Your task to perform on an android device: change notifications settings Image 0: 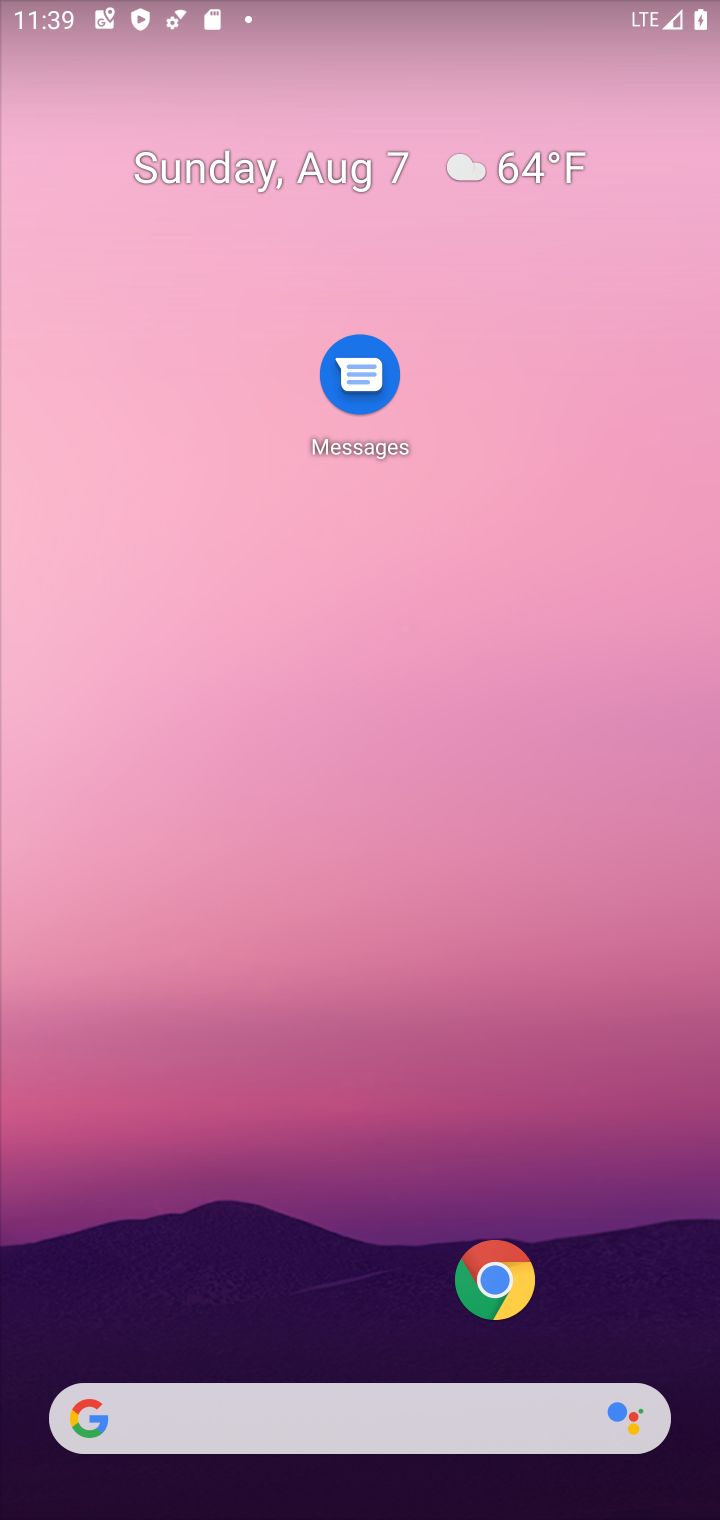
Step 0: drag from (383, 1312) to (556, 85)
Your task to perform on an android device: change notifications settings Image 1: 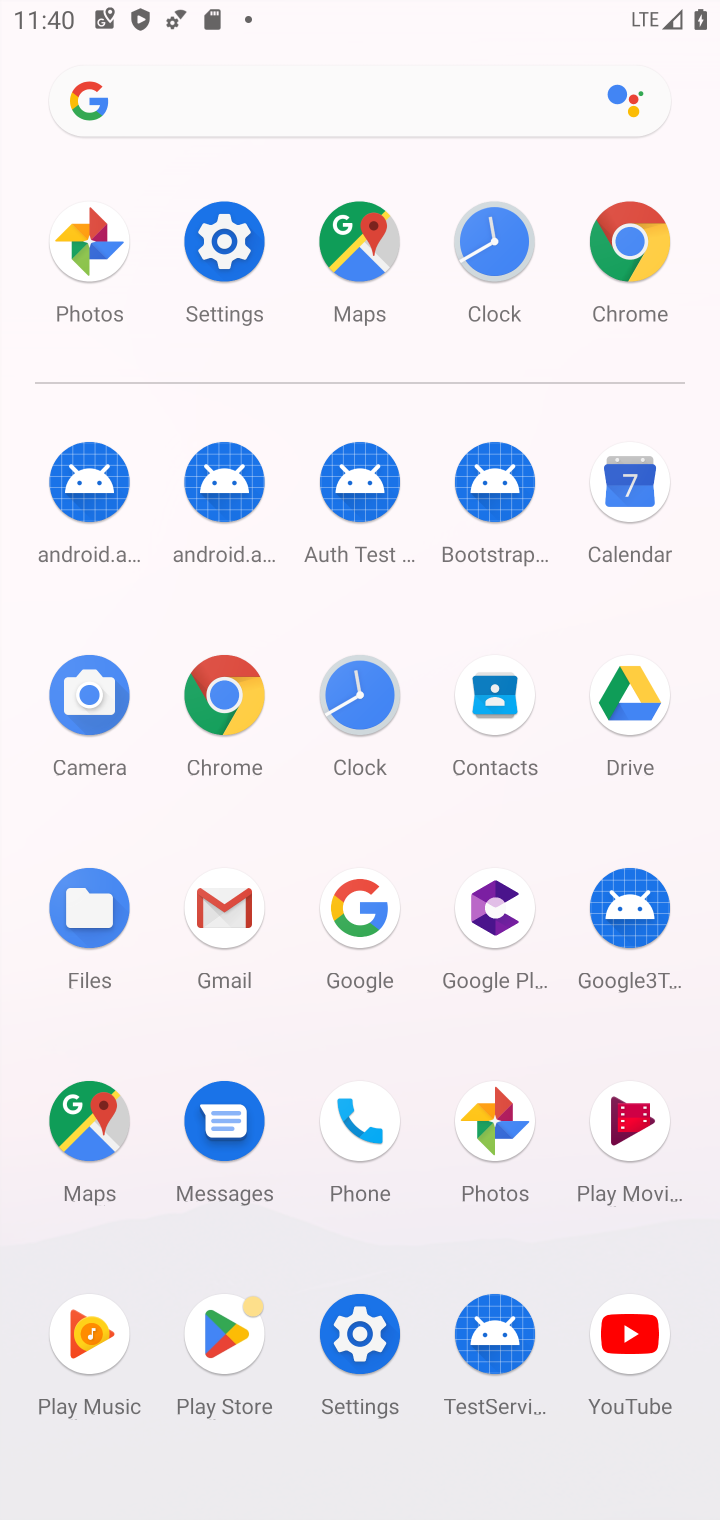
Step 1: click (222, 240)
Your task to perform on an android device: change notifications settings Image 2: 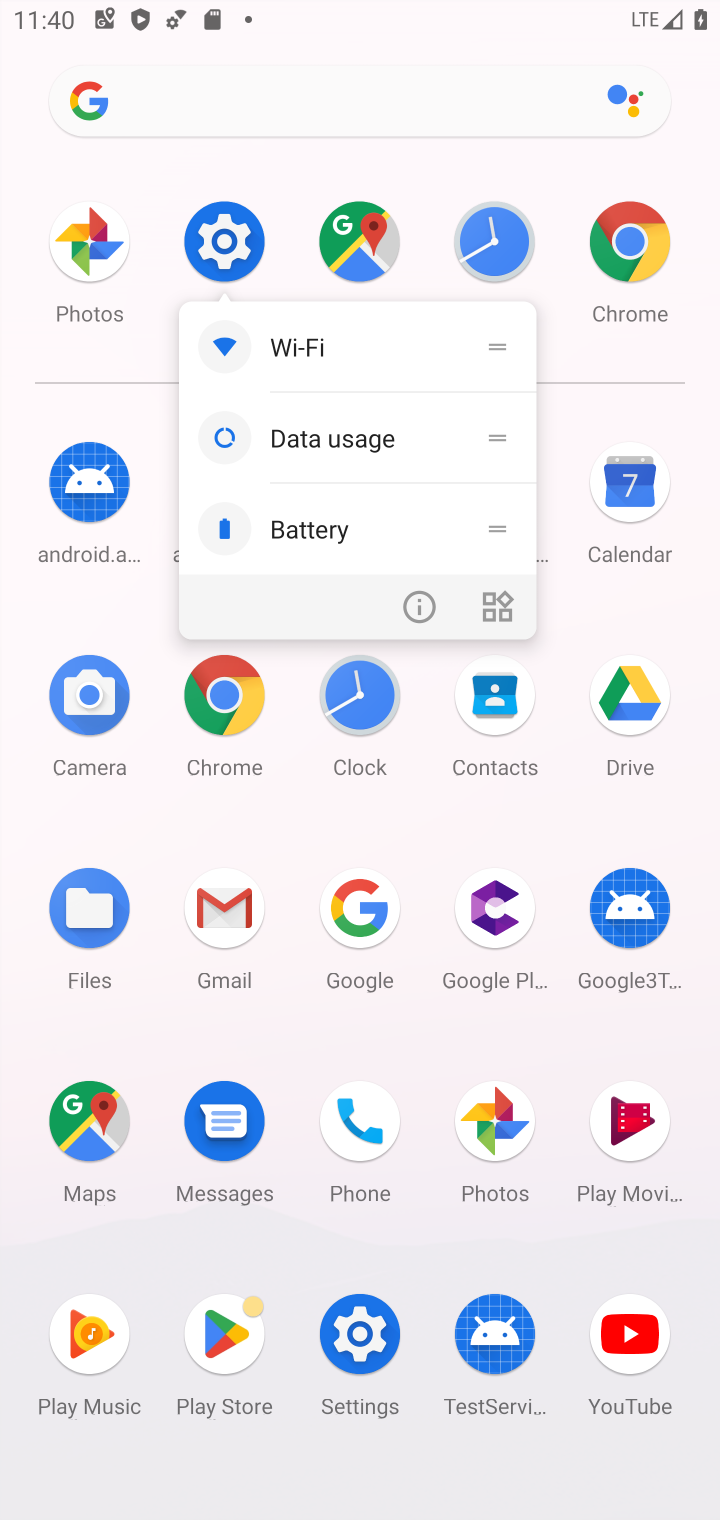
Step 2: click (233, 240)
Your task to perform on an android device: change notifications settings Image 3: 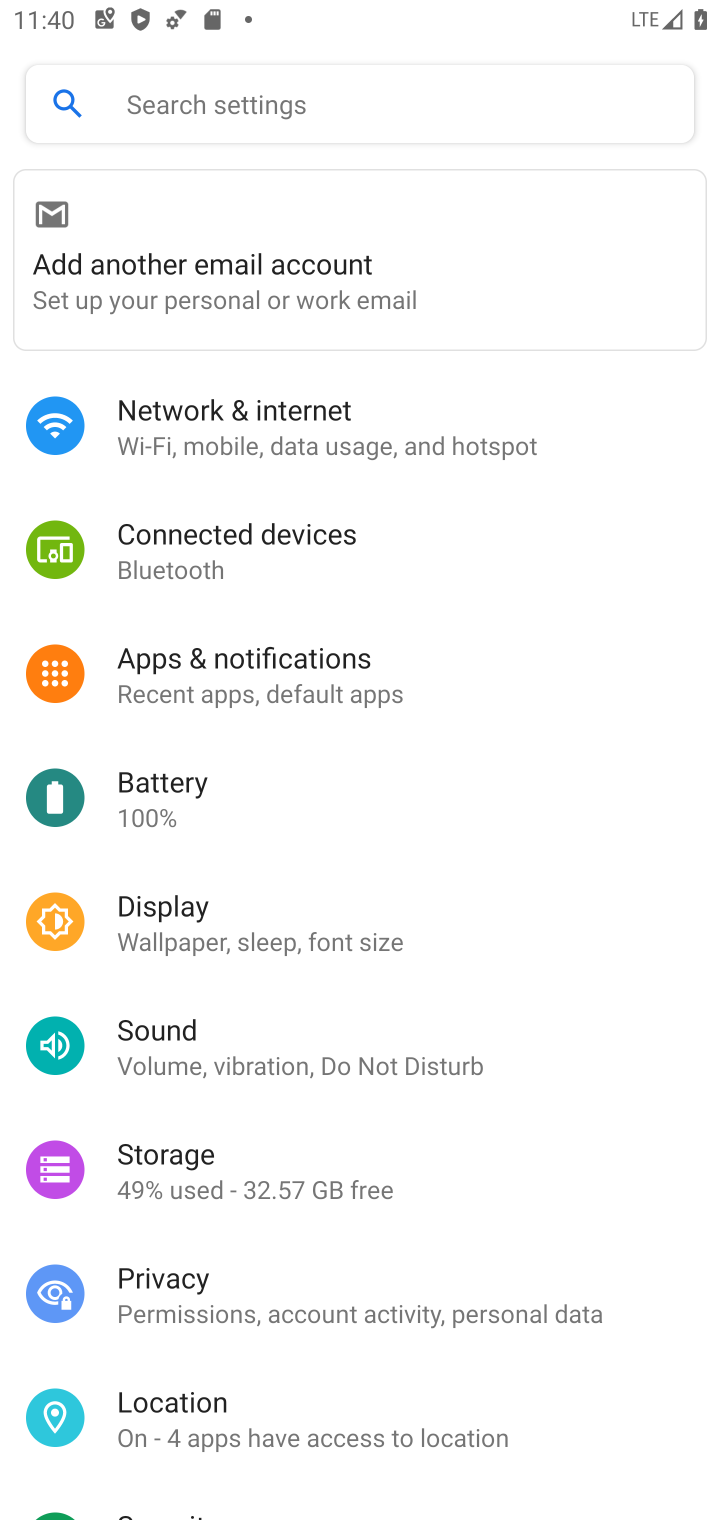
Step 3: click (309, 660)
Your task to perform on an android device: change notifications settings Image 4: 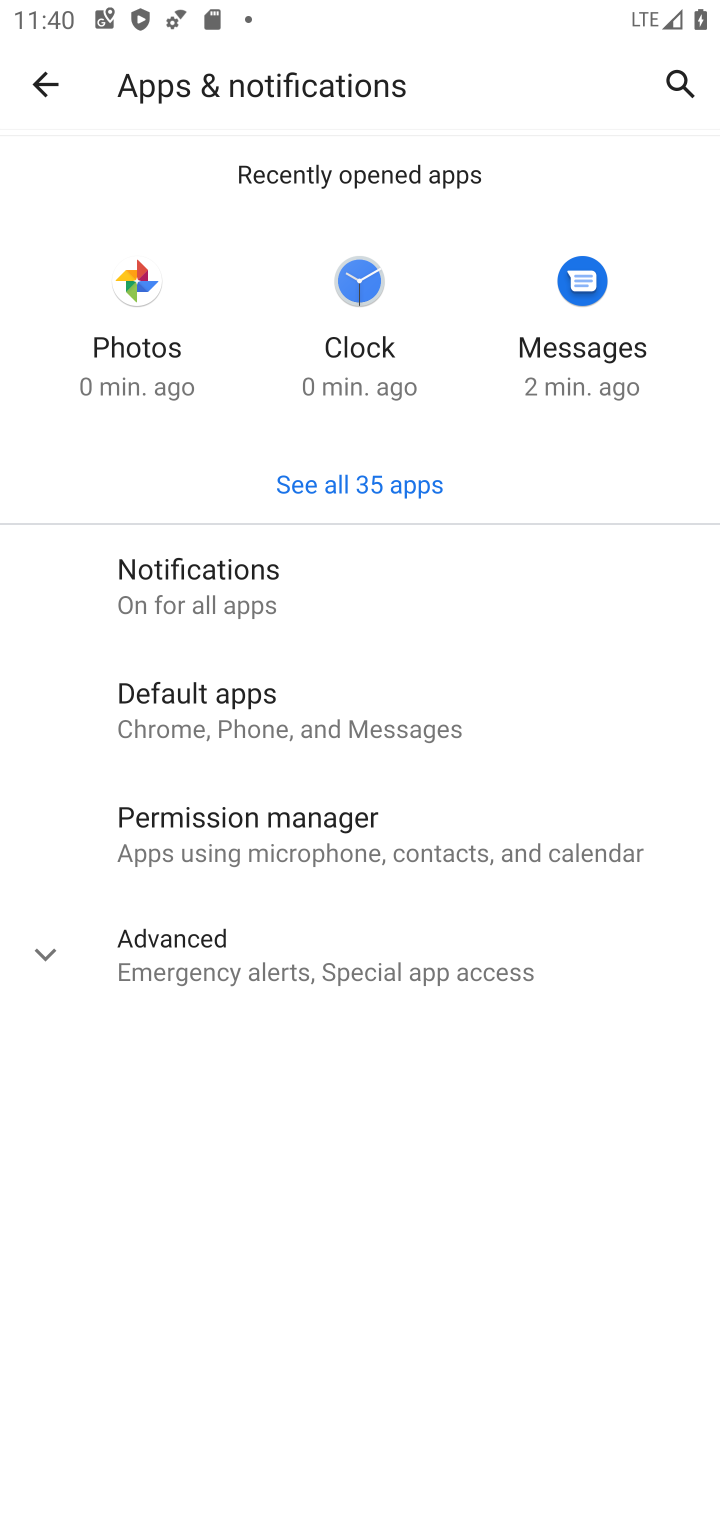
Step 4: click (346, 594)
Your task to perform on an android device: change notifications settings Image 5: 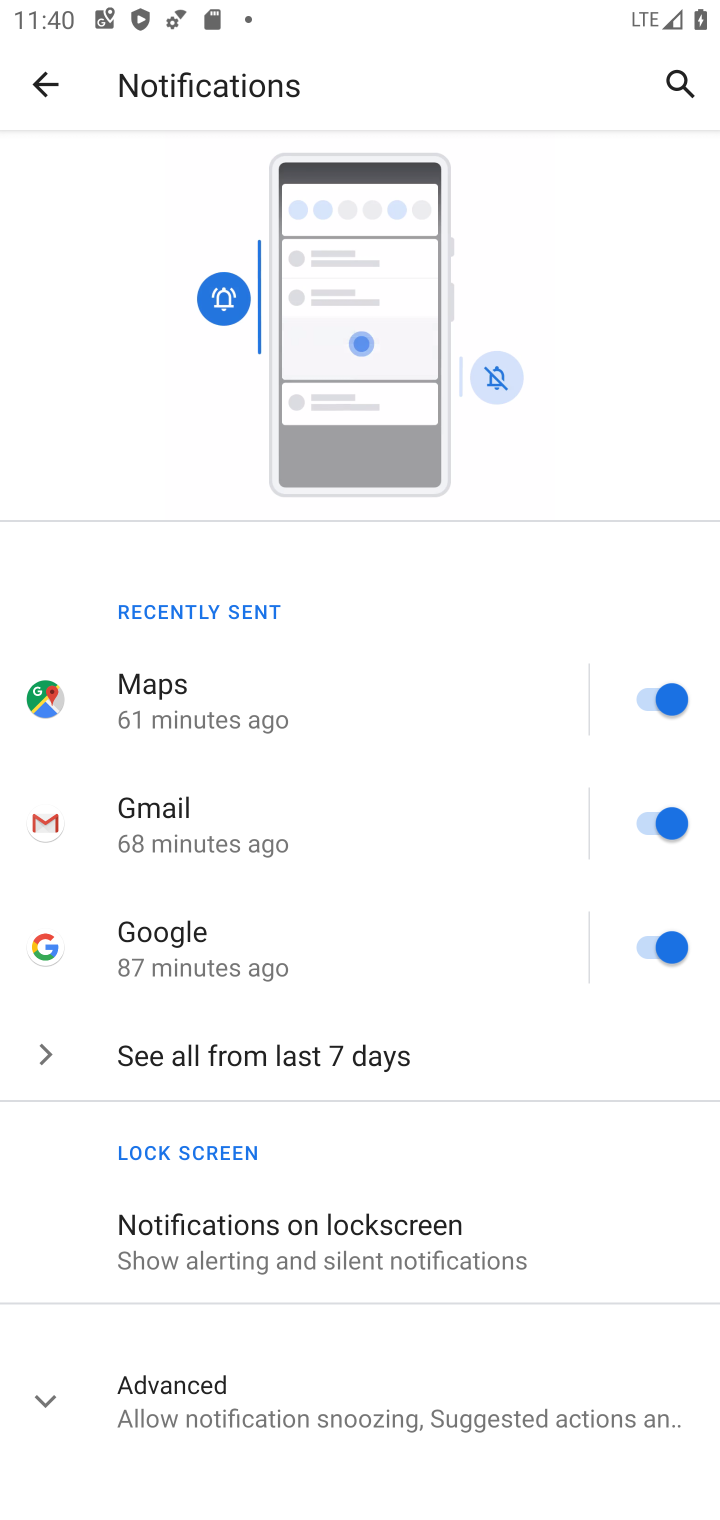
Step 5: click (363, 1434)
Your task to perform on an android device: change notifications settings Image 6: 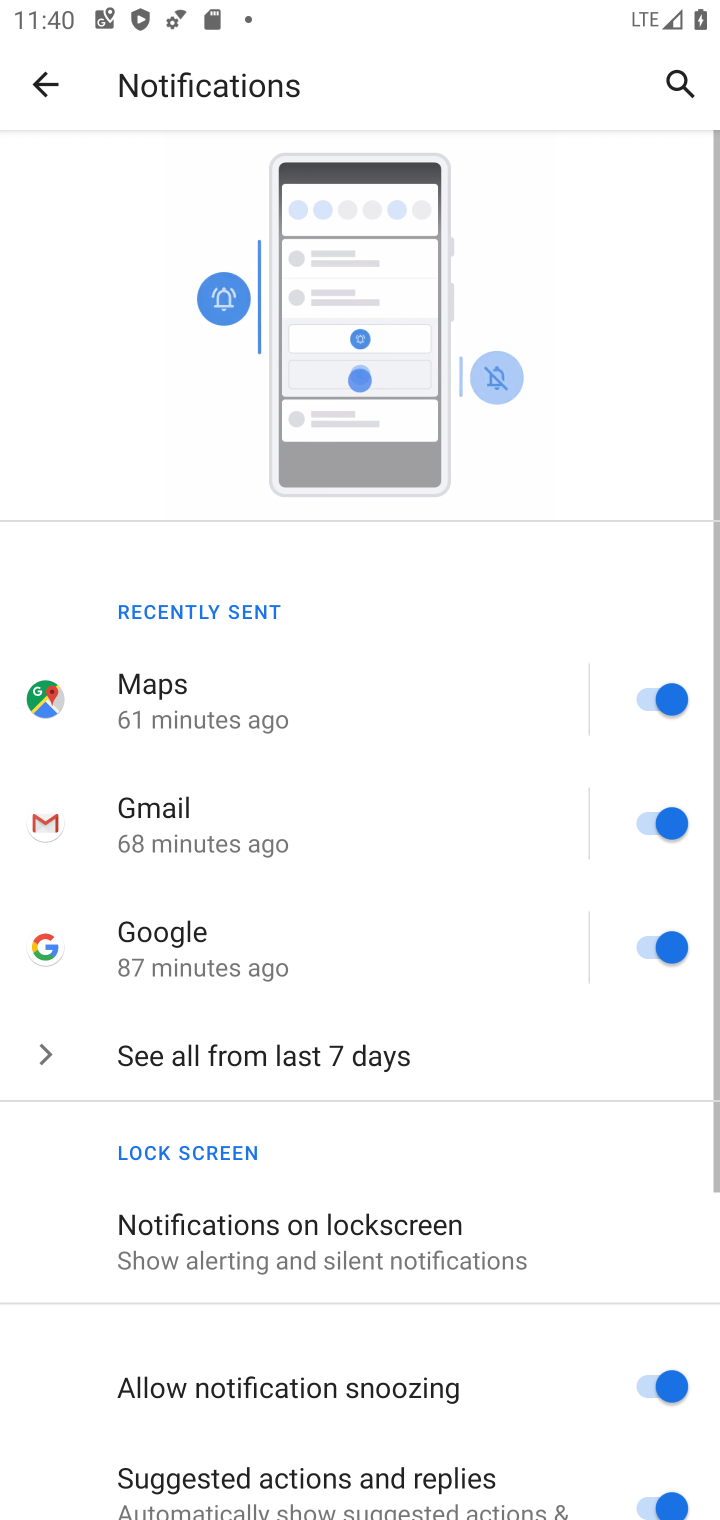
Step 6: drag from (359, 1388) to (402, 380)
Your task to perform on an android device: change notifications settings Image 7: 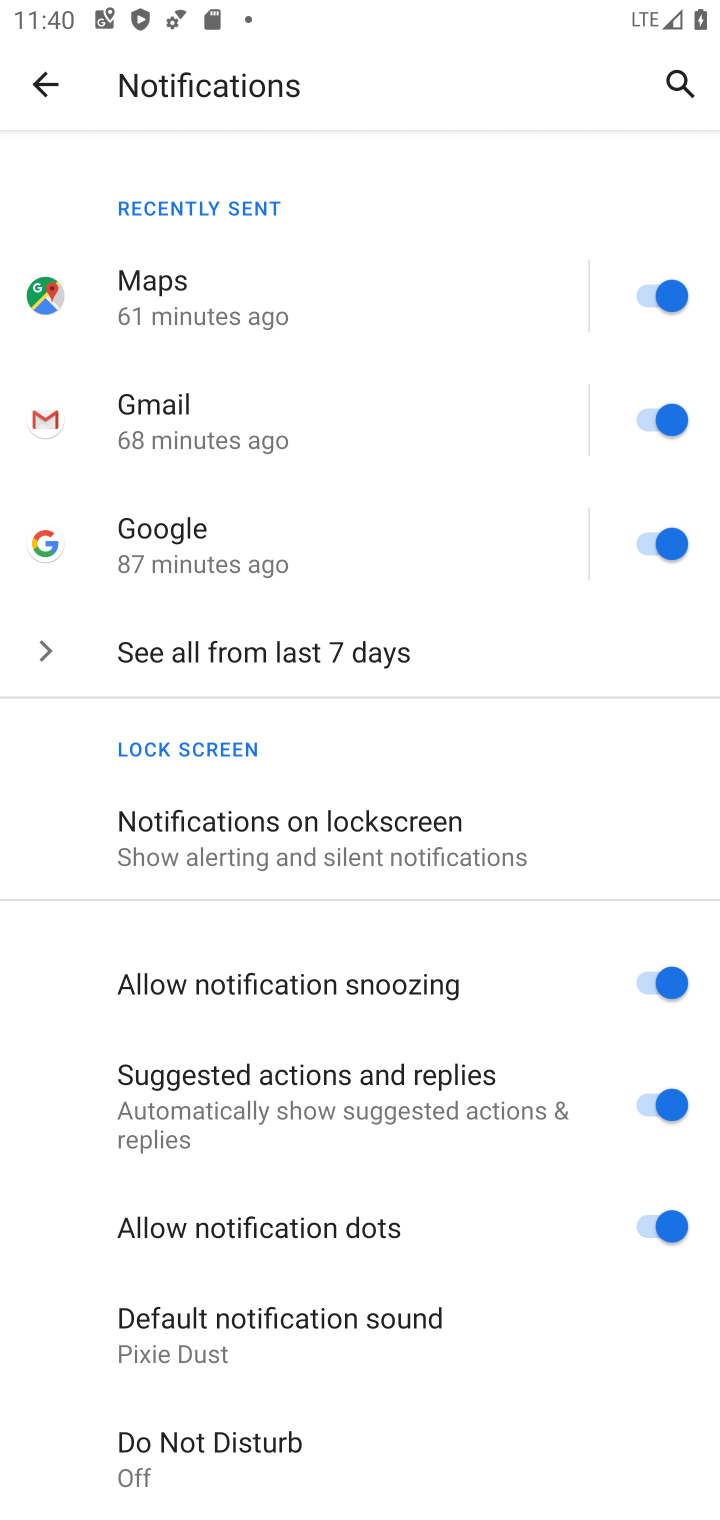
Step 7: drag from (252, 1399) to (410, 774)
Your task to perform on an android device: change notifications settings Image 8: 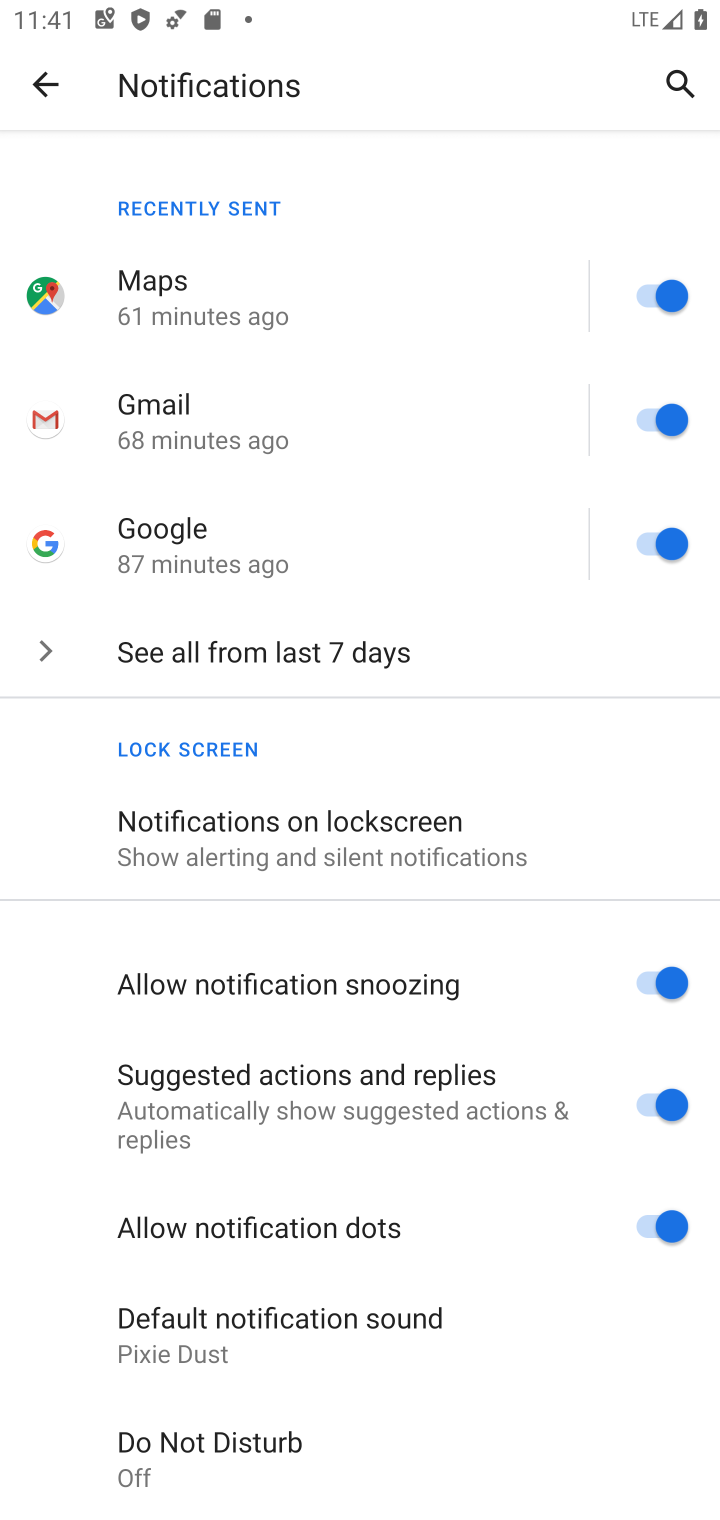
Step 8: click (667, 978)
Your task to perform on an android device: change notifications settings Image 9: 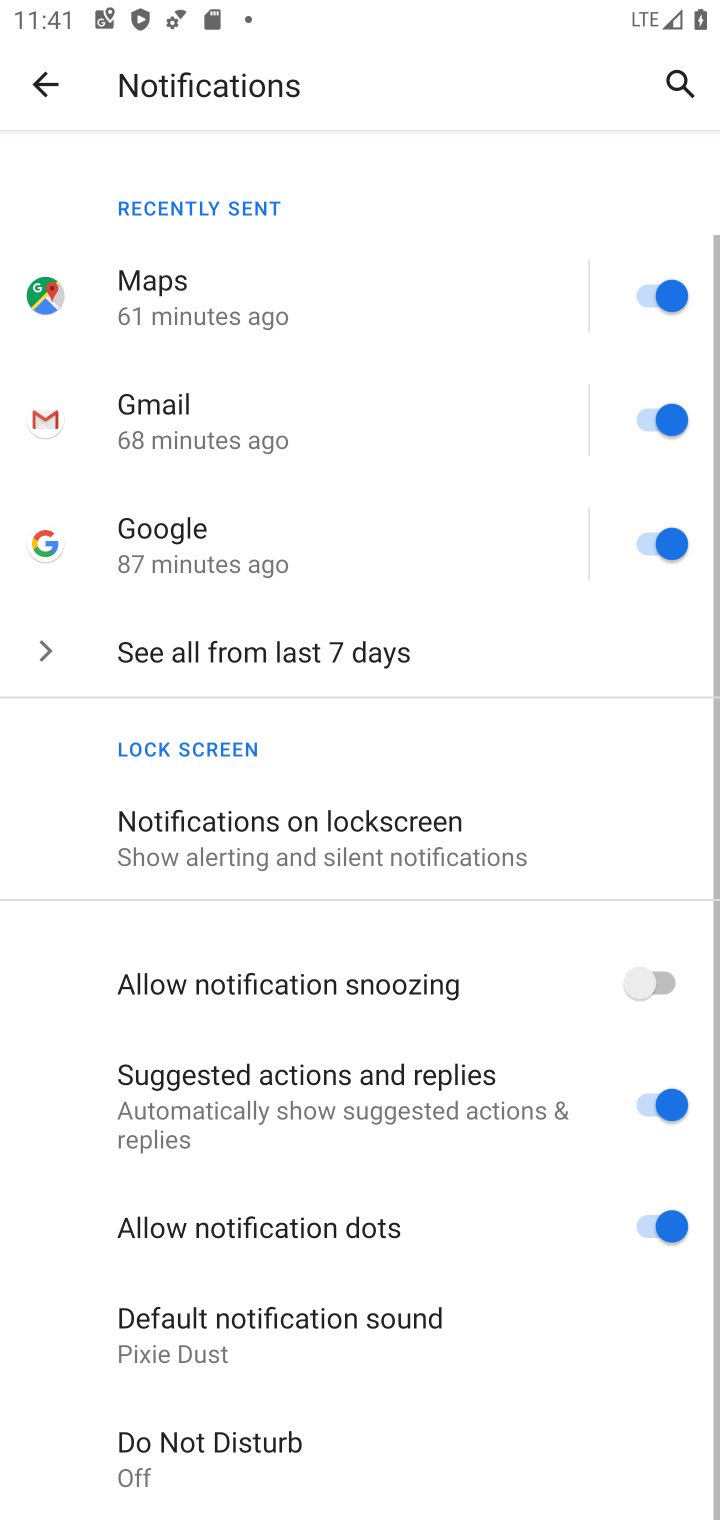
Step 9: task complete